Your task to perform on an android device: open a bookmark in the chrome app Image 0: 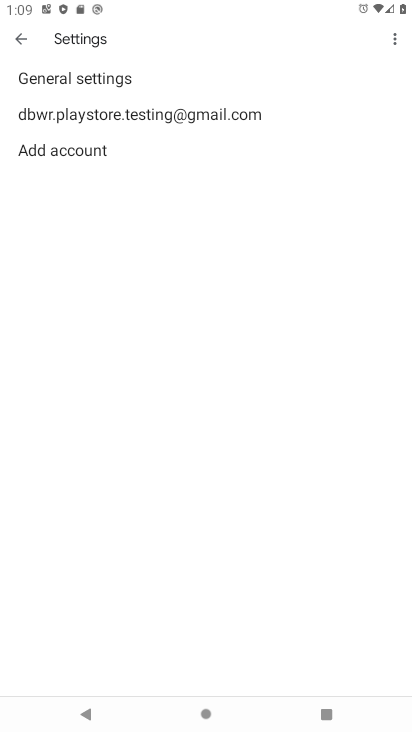
Step 0: press home button
Your task to perform on an android device: open a bookmark in the chrome app Image 1: 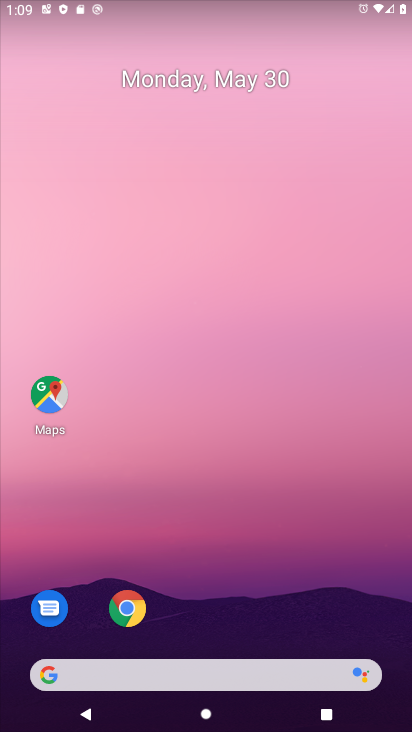
Step 1: click (131, 617)
Your task to perform on an android device: open a bookmark in the chrome app Image 2: 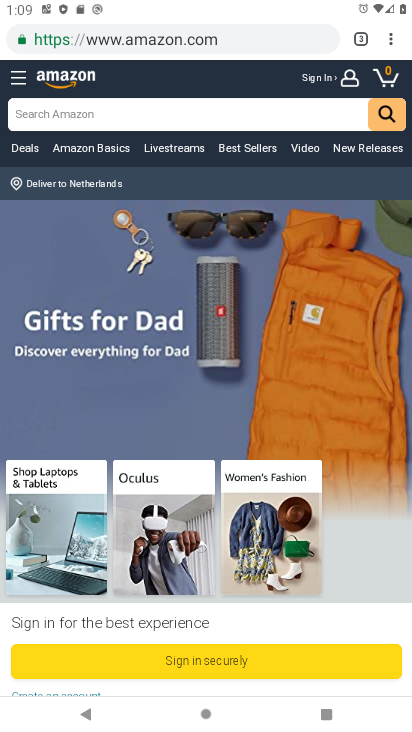
Step 2: click (392, 28)
Your task to perform on an android device: open a bookmark in the chrome app Image 3: 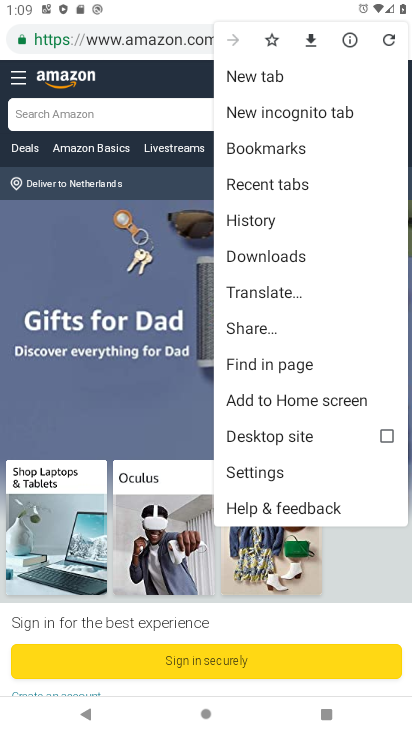
Step 3: click (276, 149)
Your task to perform on an android device: open a bookmark in the chrome app Image 4: 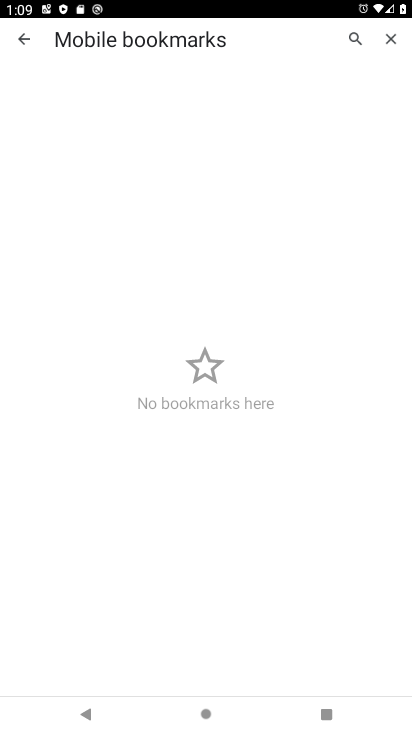
Step 4: click (184, 445)
Your task to perform on an android device: open a bookmark in the chrome app Image 5: 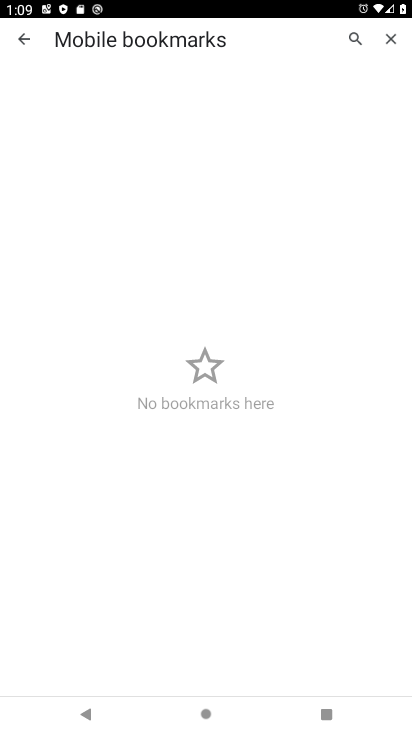
Step 5: task complete